Your task to perform on an android device: What's the weather today? Image 0: 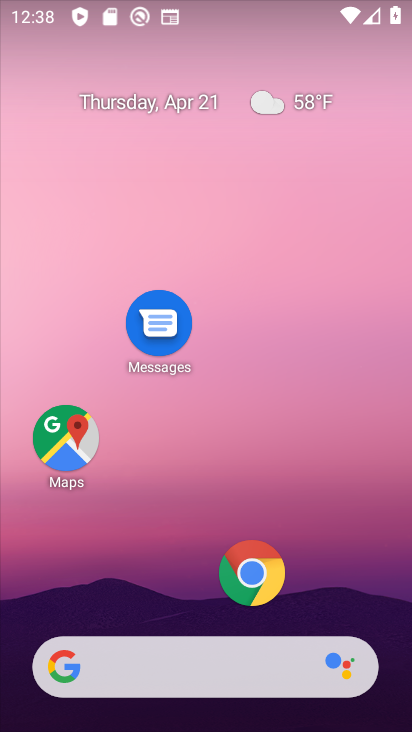
Step 0: drag from (199, 569) to (193, 96)
Your task to perform on an android device: What's the weather today? Image 1: 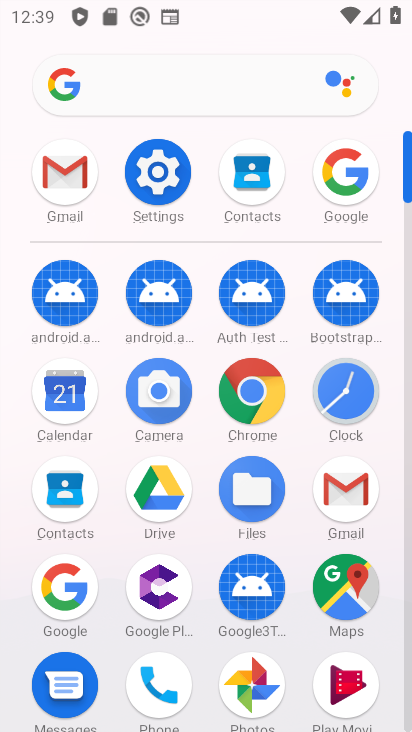
Step 1: click (349, 179)
Your task to perform on an android device: What's the weather today? Image 2: 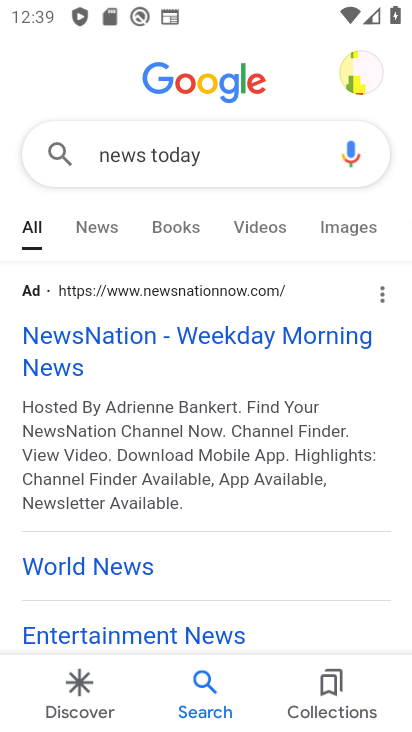
Step 2: click (217, 157)
Your task to perform on an android device: What's the weather today? Image 3: 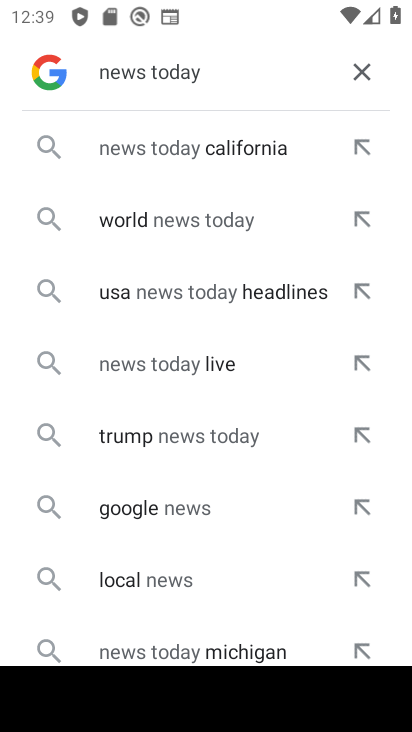
Step 3: click (385, 70)
Your task to perform on an android device: What's the weather today? Image 4: 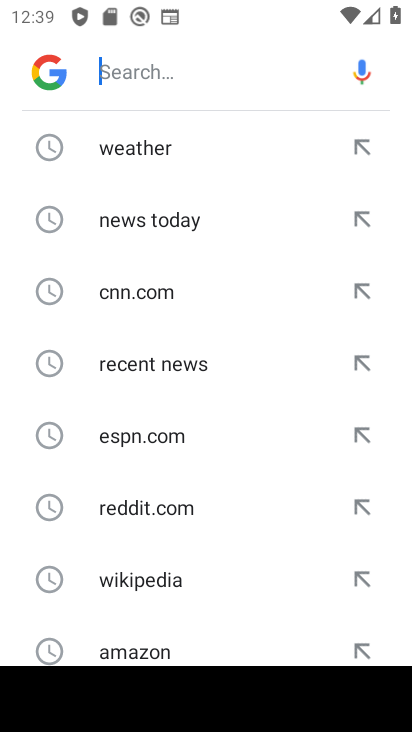
Step 4: type "weather today"
Your task to perform on an android device: What's the weather today? Image 5: 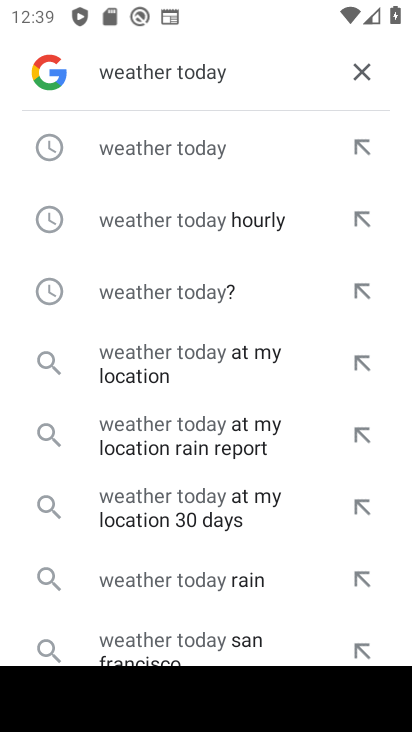
Step 5: click (186, 163)
Your task to perform on an android device: What's the weather today? Image 6: 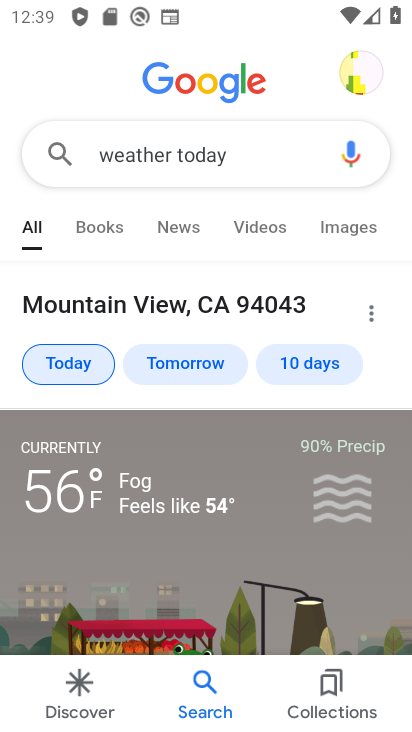
Step 6: task complete